Your task to perform on an android device: open wifi settings Image 0: 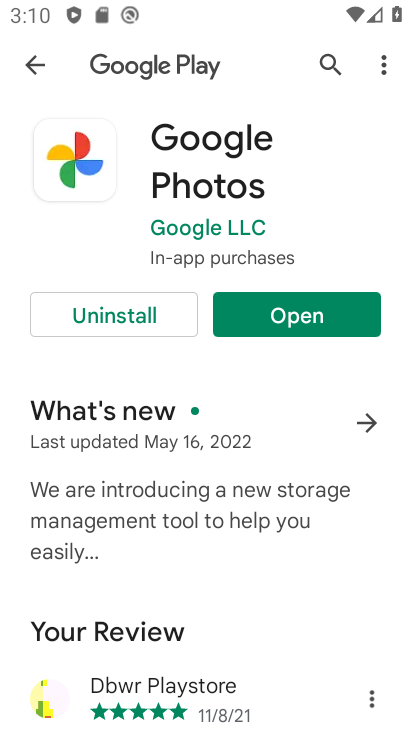
Step 0: press home button
Your task to perform on an android device: open wifi settings Image 1: 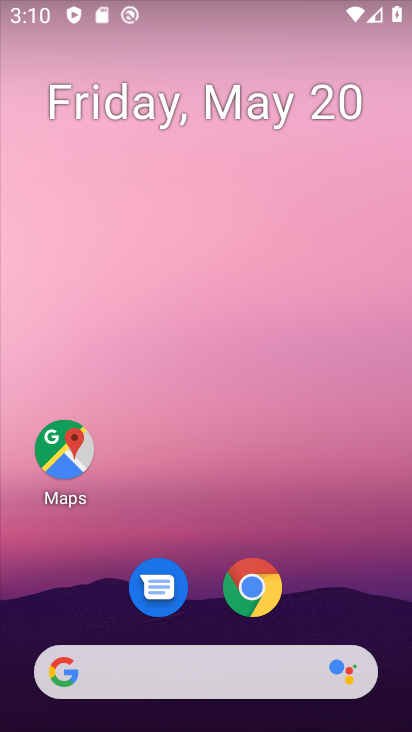
Step 1: drag from (352, 587) to (271, 290)
Your task to perform on an android device: open wifi settings Image 2: 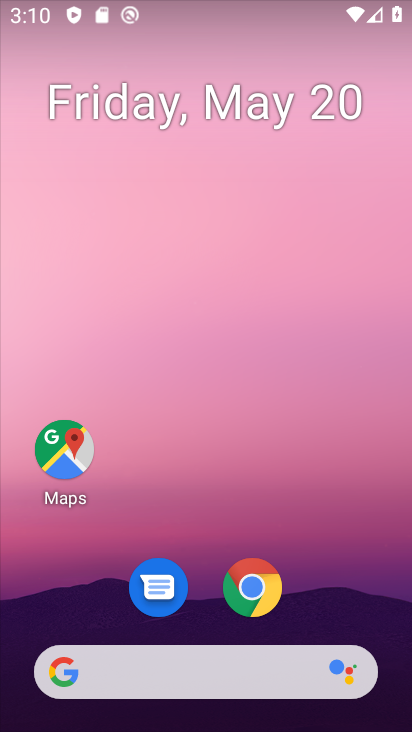
Step 2: drag from (305, 2) to (359, 727)
Your task to perform on an android device: open wifi settings Image 3: 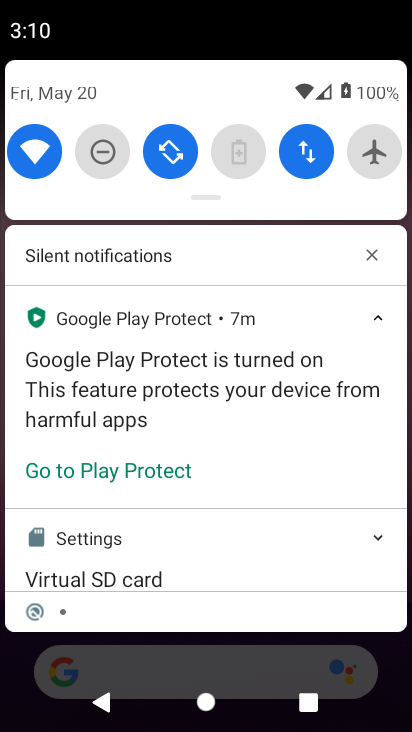
Step 3: click (24, 151)
Your task to perform on an android device: open wifi settings Image 4: 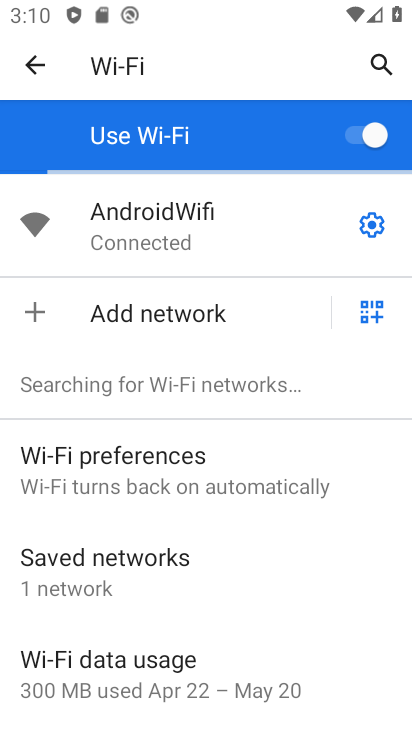
Step 4: task complete